Your task to perform on an android device: Open Chrome and go to settings Image 0: 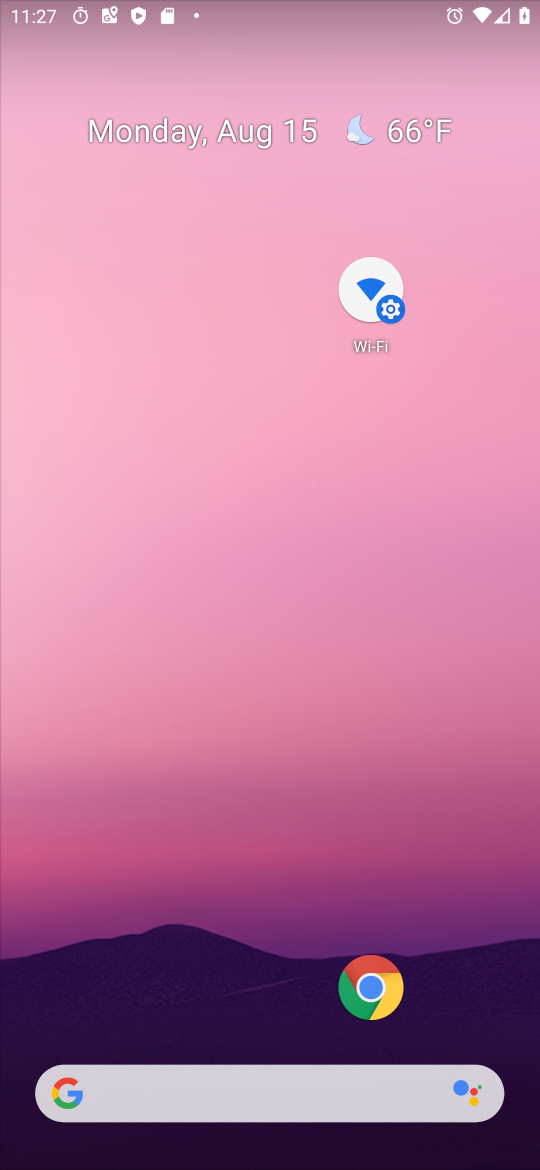
Step 0: drag from (227, 1061) to (157, 135)
Your task to perform on an android device: Open Chrome and go to settings Image 1: 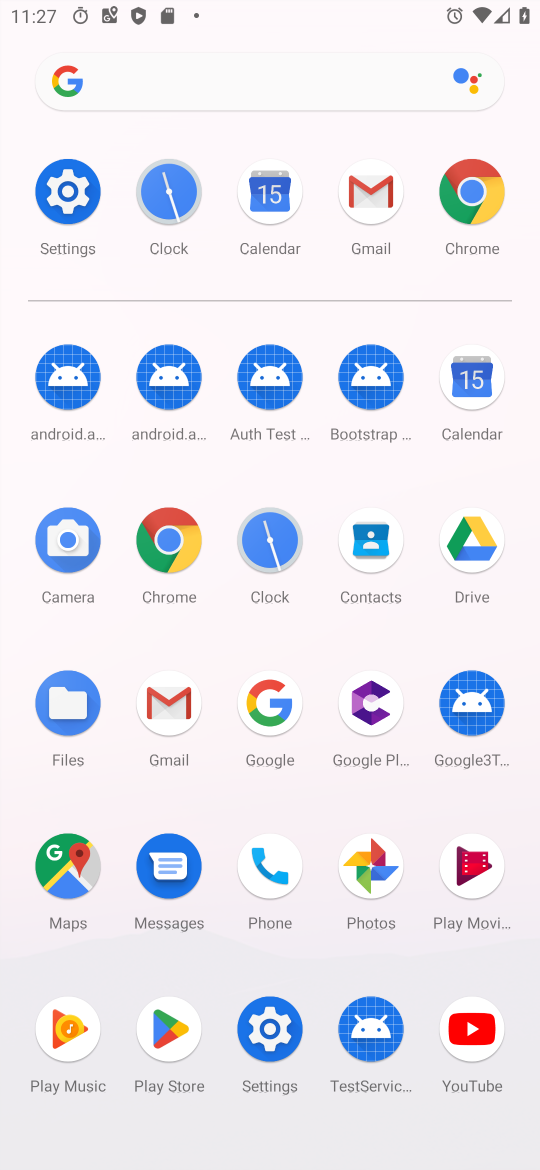
Step 1: click (132, 564)
Your task to perform on an android device: Open Chrome and go to settings Image 2: 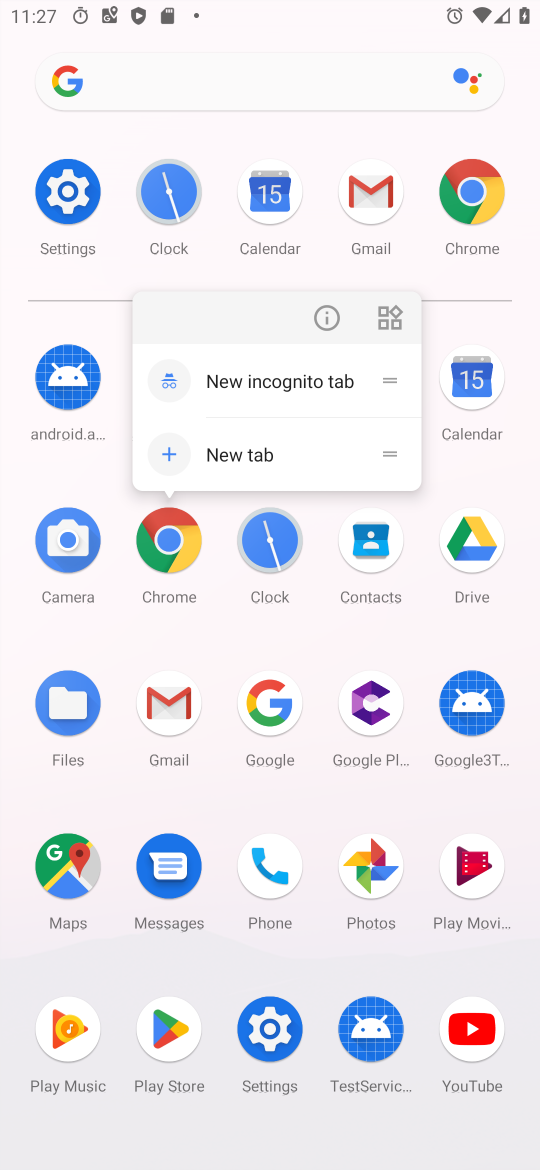
Step 2: click (162, 551)
Your task to perform on an android device: Open Chrome and go to settings Image 3: 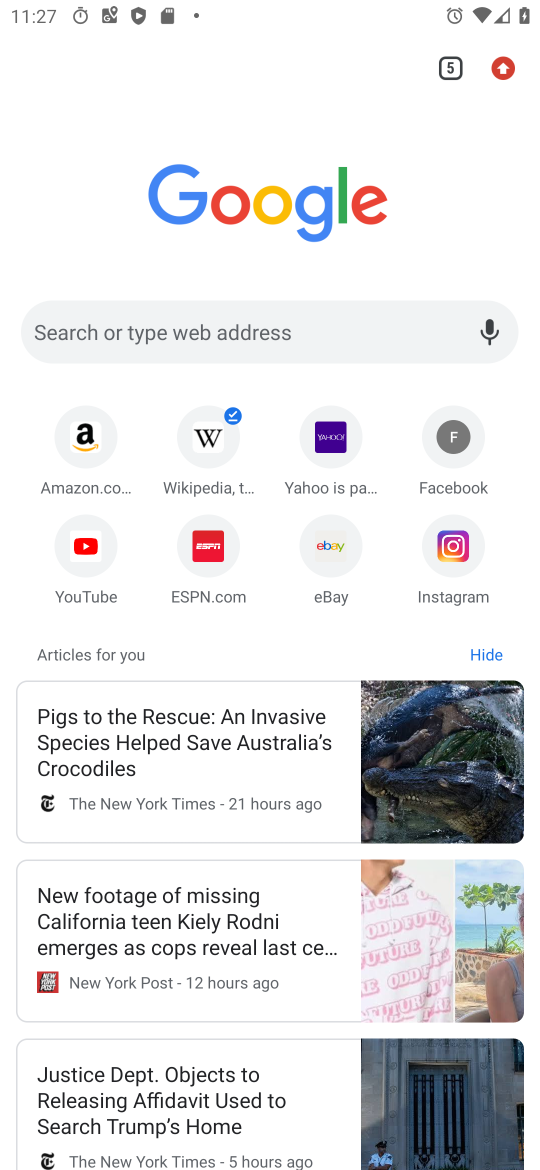
Step 3: click (496, 66)
Your task to perform on an android device: Open Chrome and go to settings Image 4: 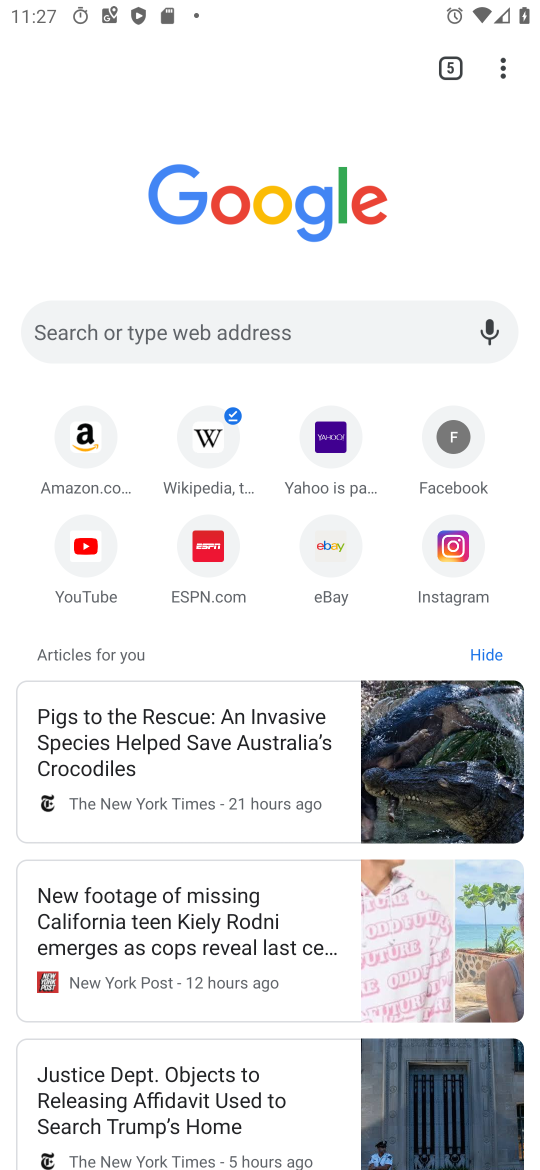
Step 4: task complete